Your task to perform on an android device: Open ESPN.com Image 0: 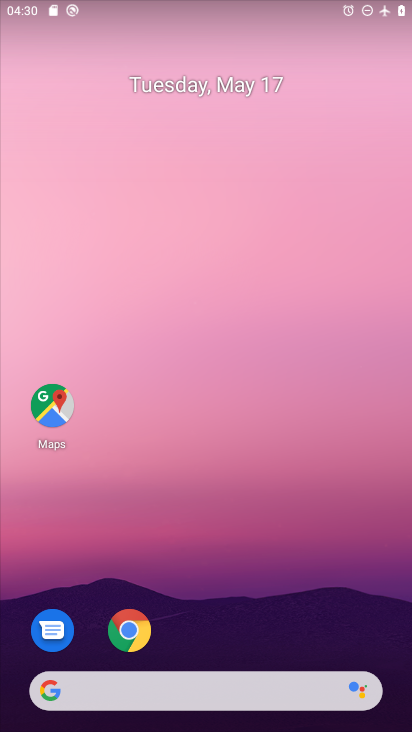
Step 0: click (123, 624)
Your task to perform on an android device: Open ESPN.com Image 1: 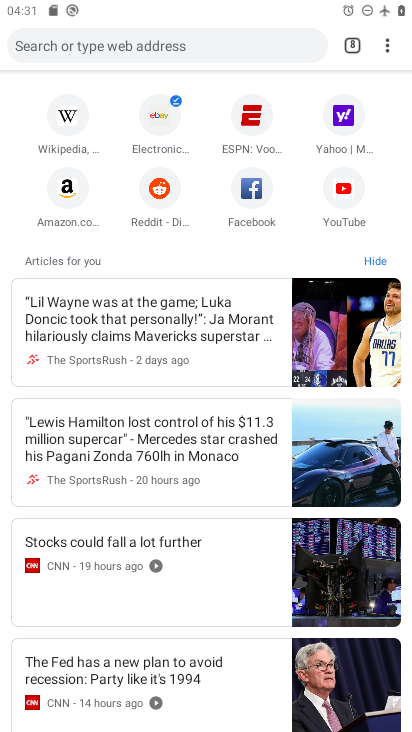
Step 1: click (243, 119)
Your task to perform on an android device: Open ESPN.com Image 2: 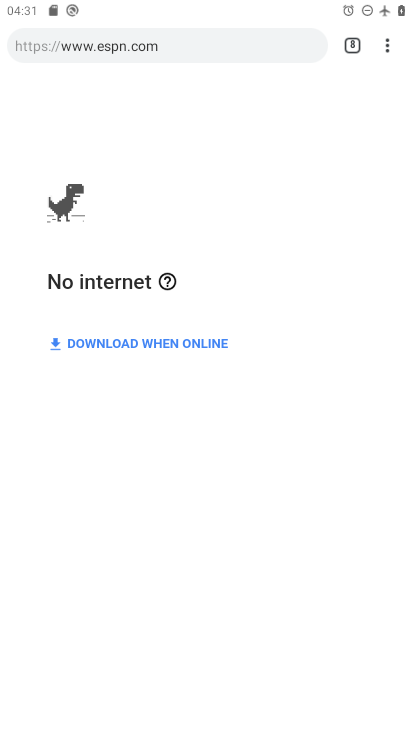
Step 2: drag from (325, 12) to (265, 447)
Your task to perform on an android device: Open ESPN.com Image 3: 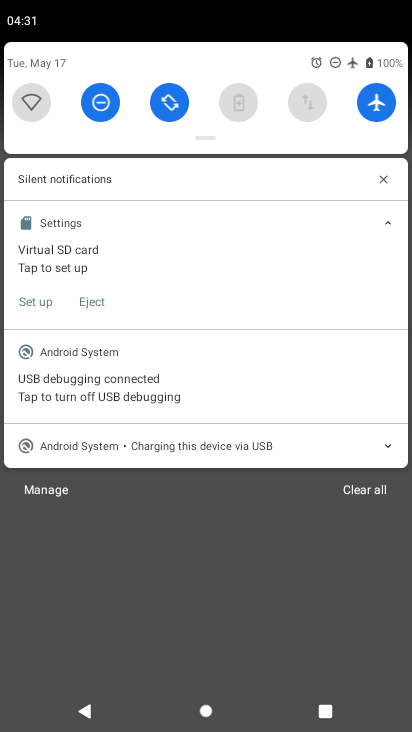
Step 3: click (376, 99)
Your task to perform on an android device: Open ESPN.com Image 4: 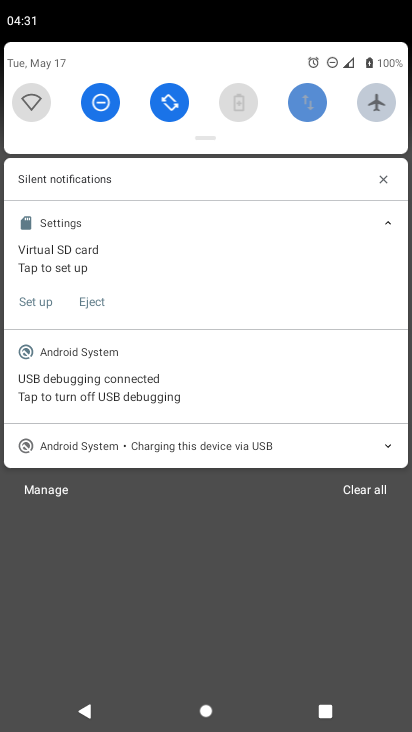
Step 4: click (180, 549)
Your task to perform on an android device: Open ESPN.com Image 5: 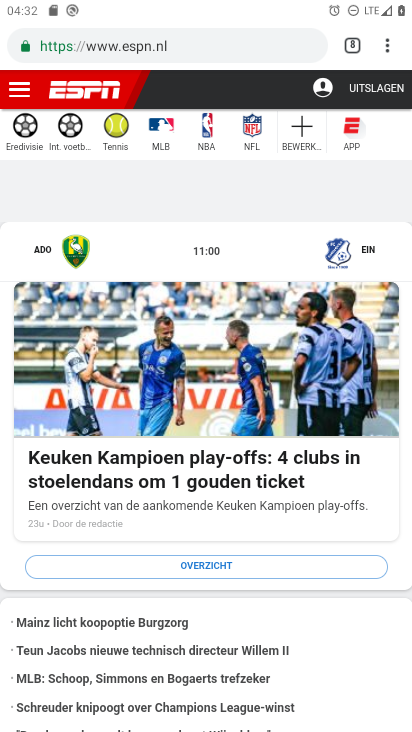
Step 5: task complete